Your task to perform on an android device: turn vacation reply on in the gmail app Image 0: 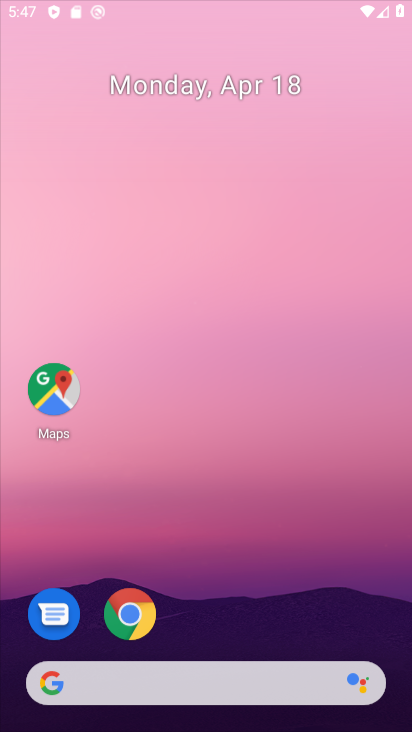
Step 0: click (118, 353)
Your task to perform on an android device: turn vacation reply on in the gmail app Image 1: 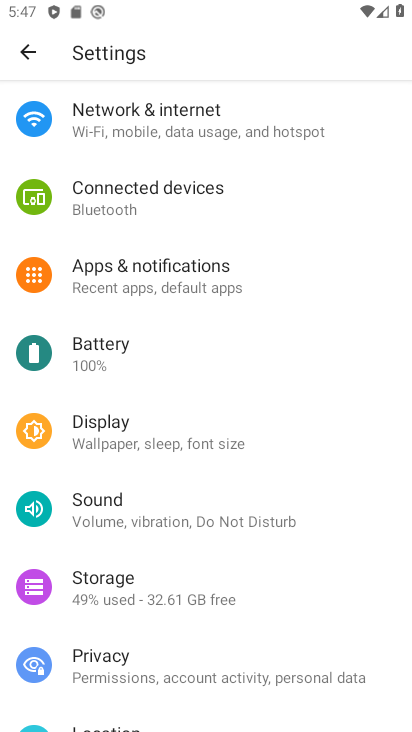
Step 1: press home button
Your task to perform on an android device: turn vacation reply on in the gmail app Image 2: 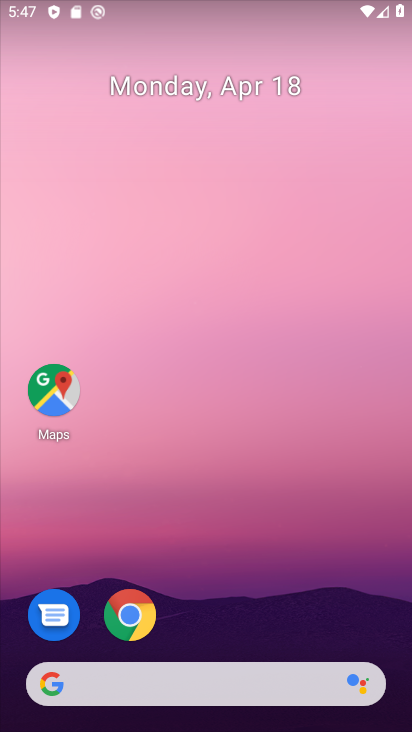
Step 2: drag from (316, 593) to (375, 7)
Your task to perform on an android device: turn vacation reply on in the gmail app Image 3: 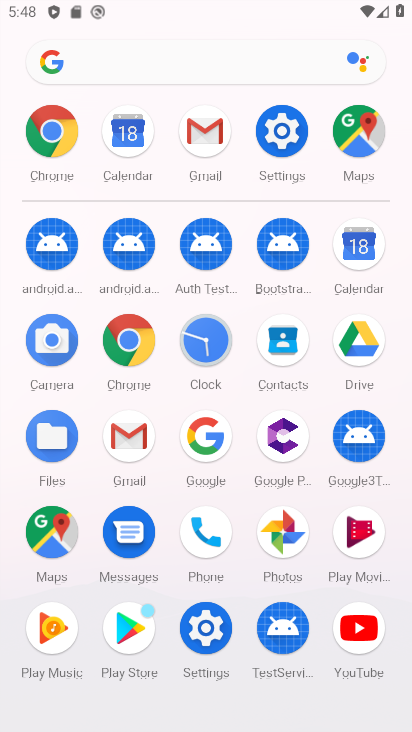
Step 3: click (123, 448)
Your task to perform on an android device: turn vacation reply on in the gmail app Image 4: 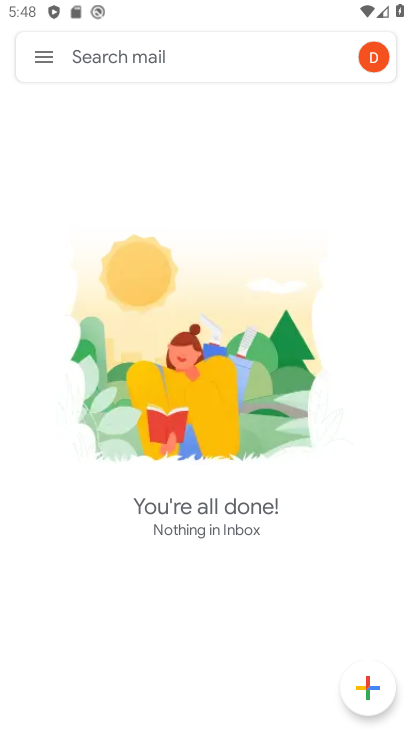
Step 4: click (39, 51)
Your task to perform on an android device: turn vacation reply on in the gmail app Image 5: 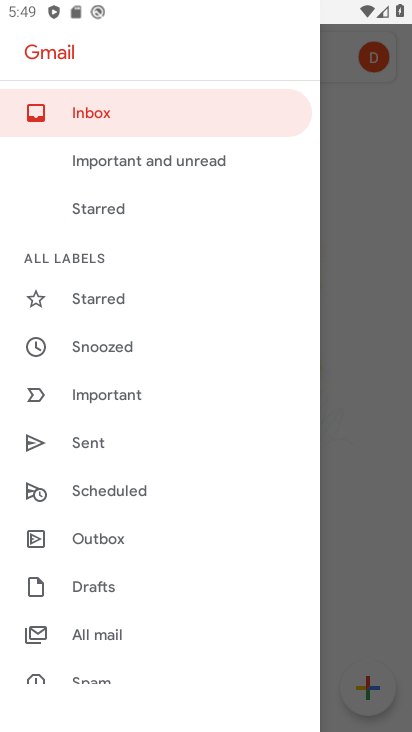
Step 5: drag from (143, 607) to (130, 203)
Your task to perform on an android device: turn vacation reply on in the gmail app Image 6: 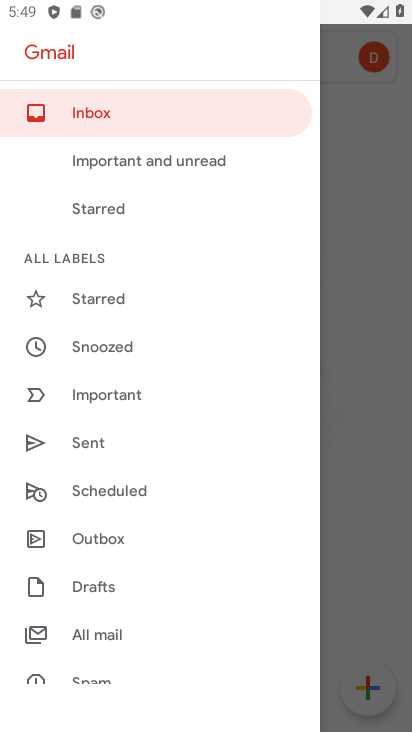
Step 6: drag from (110, 547) to (112, 164)
Your task to perform on an android device: turn vacation reply on in the gmail app Image 7: 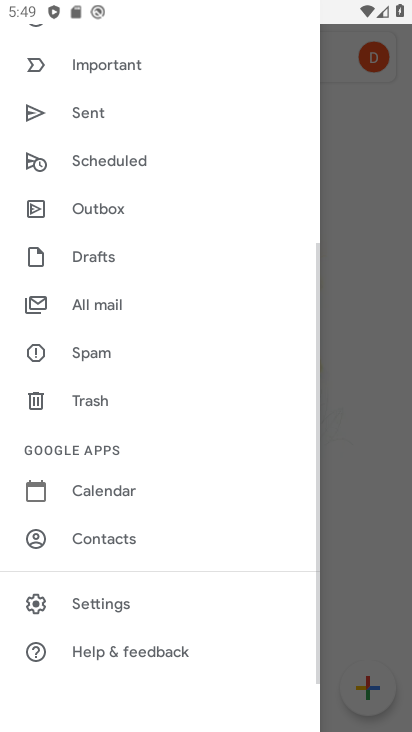
Step 7: click (135, 589)
Your task to perform on an android device: turn vacation reply on in the gmail app Image 8: 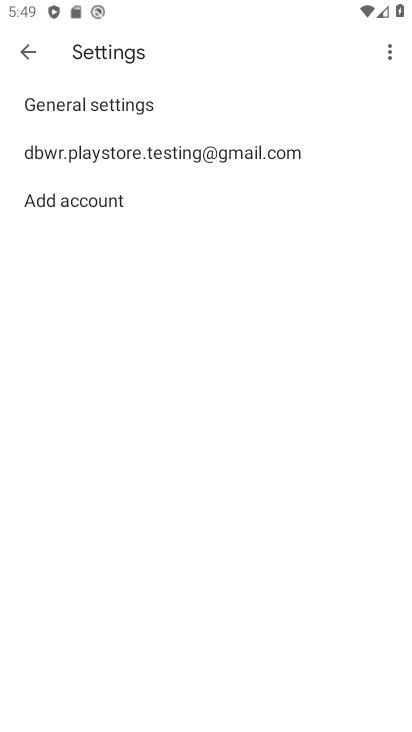
Step 8: click (158, 160)
Your task to perform on an android device: turn vacation reply on in the gmail app Image 9: 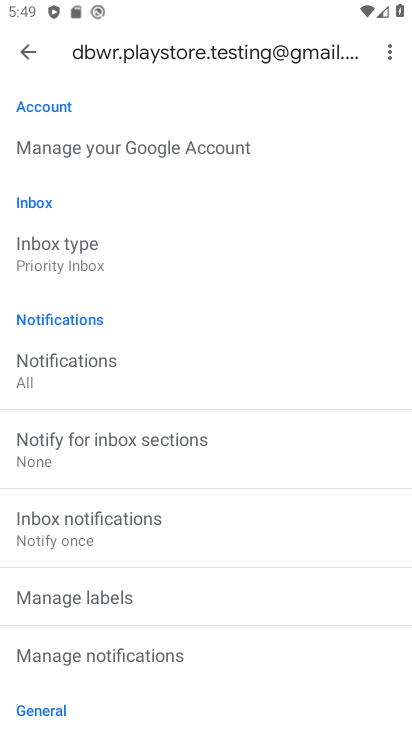
Step 9: drag from (250, 673) to (229, 101)
Your task to perform on an android device: turn vacation reply on in the gmail app Image 10: 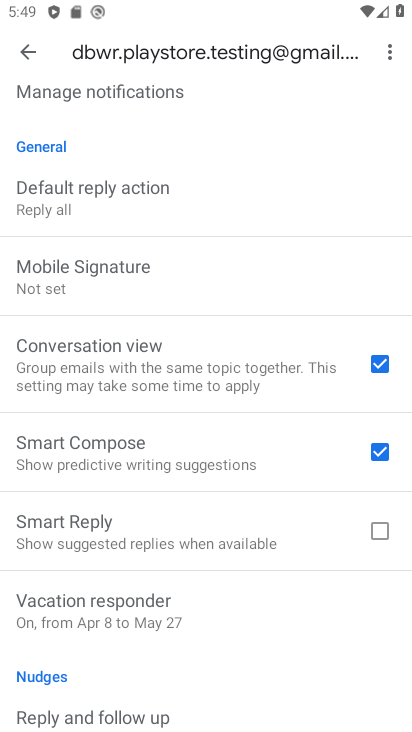
Step 10: click (77, 622)
Your task to perform on an android device: turn vacation reply on in the gmail app Image 11: 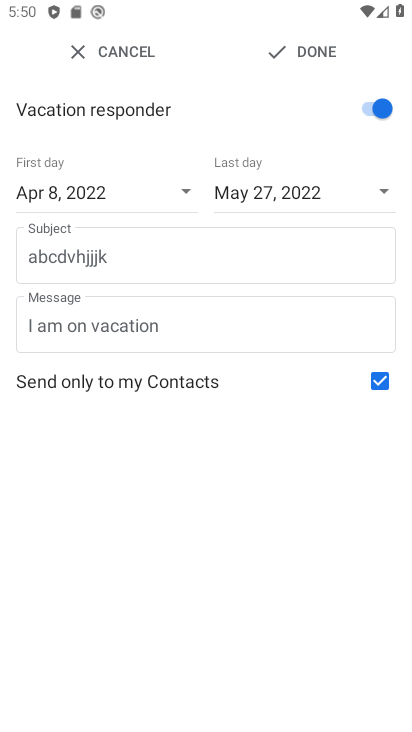
Step 11: click (173, 180)
Your task to perform on an android device: turn vacation reply on in the gmail app Image 12: 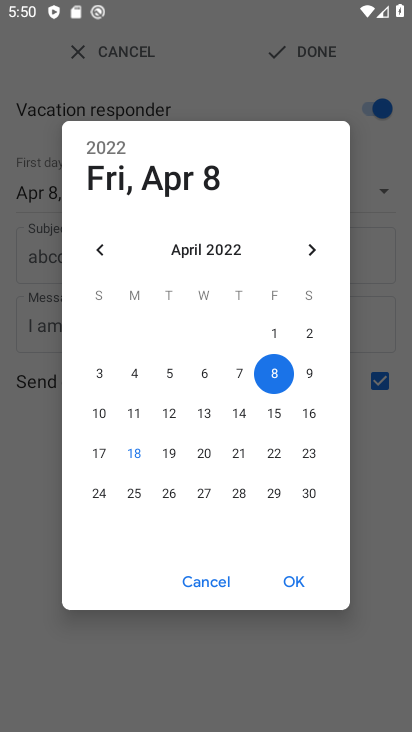
Step 12: click (131, 451)
Your task to perform on an android device: turn vacation reply on in the gmail app Image 13: 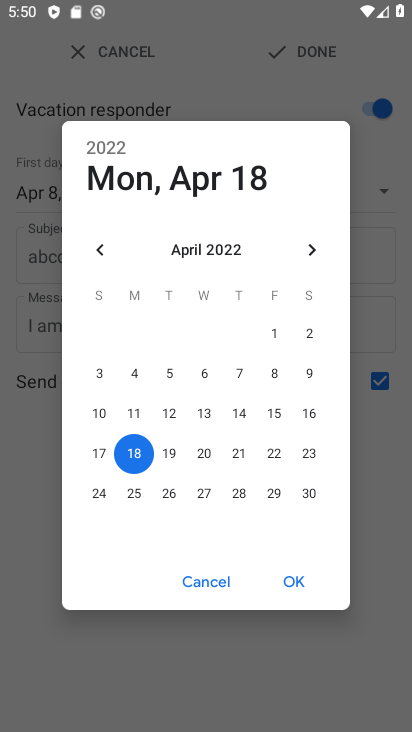
Step 13: click (303, 575)
Your task to perform on an android device: turn vacation reply on in the gmail app Image 14: 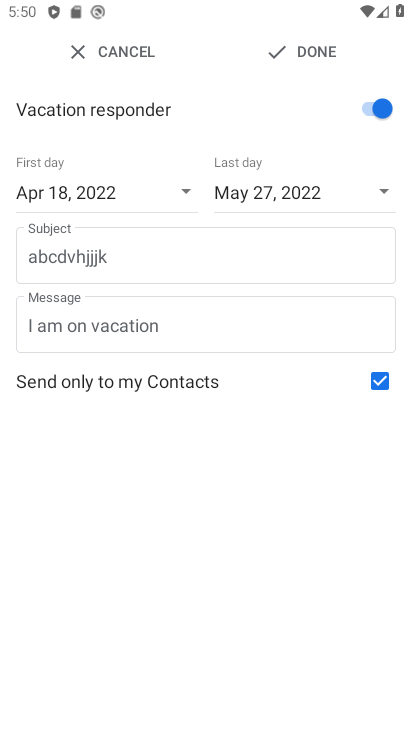
Step 14: click (269, 237)
Your task to perform on an android device: turn vacation reply on in the gmail app Image 15: 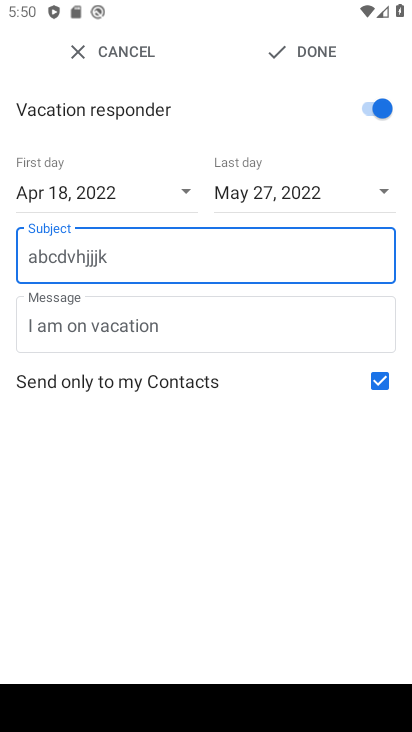
Step 15: click (308, 248)
Your task to perform on an android device: turn vacation reply on in the gmail app Image 16: 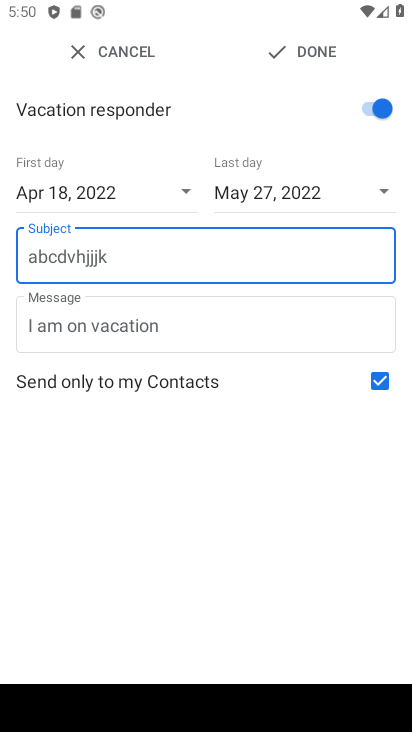
Step 16: click (221, 271)
Your task to perform on an android device: turn vacation reply on in the gmail app Image 17: 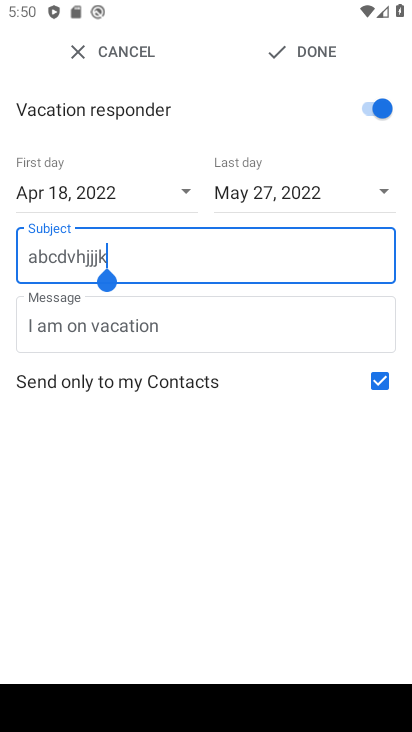
Step 17: click (225, 266)
Your task to perform on an android device: turn vacation reply on in the gmail app Image 18: 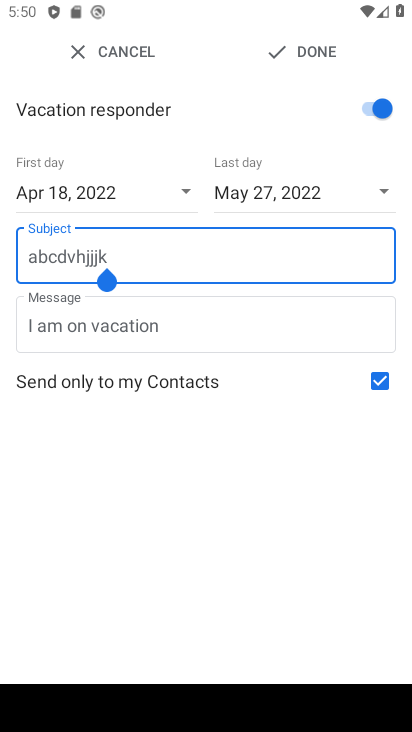
Step 18: click (225, 264)
Your task to perform on an android device: turn vacation reply on in the gmail app Image 19: 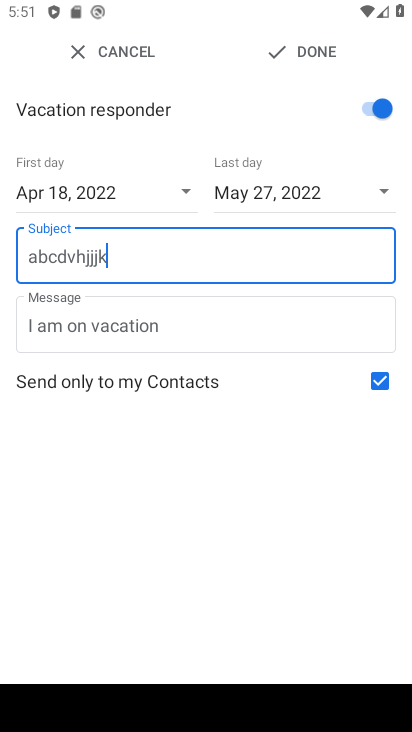
Step 19: type "jhfetiojbcsd"
Your task to perform on an android device: turn vacation reply on in the gmail app Image 20: 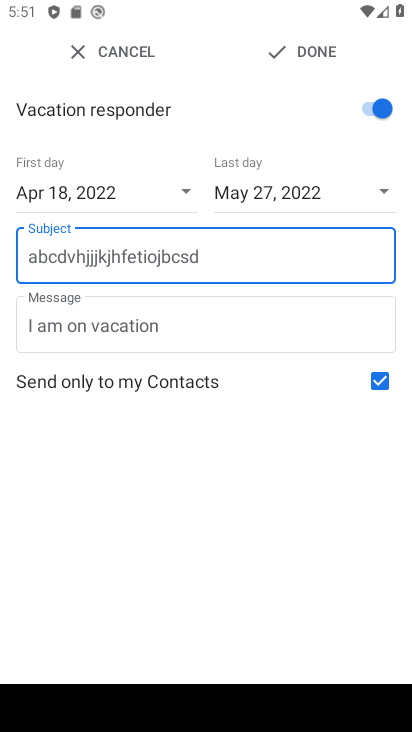
Step 20: click (326, 49)
Your task to perform on an android device: turn vacation reply on in the gmail app Image 21: 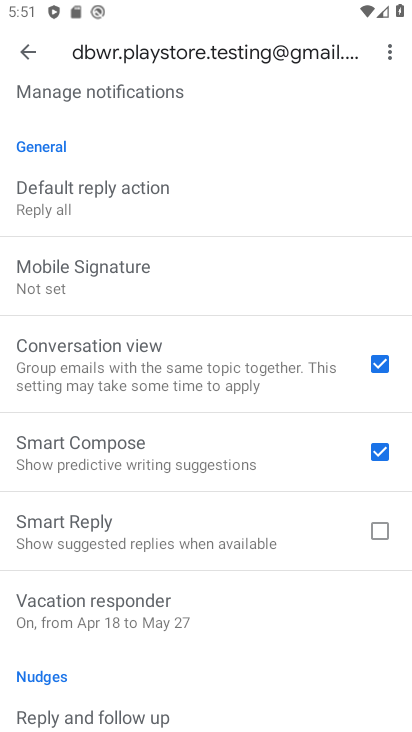
Step 21: task complete